Your task to perform on an android device: Go to Google Image 0: 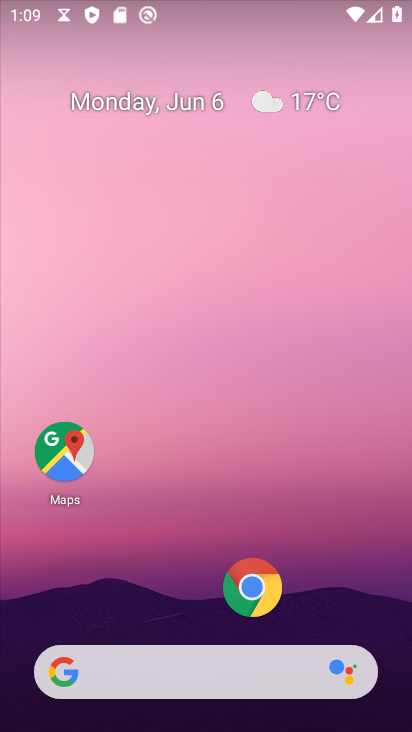
Step 0: click (61, 674)
Your task to perform on an android device: Go to Google Image 1: 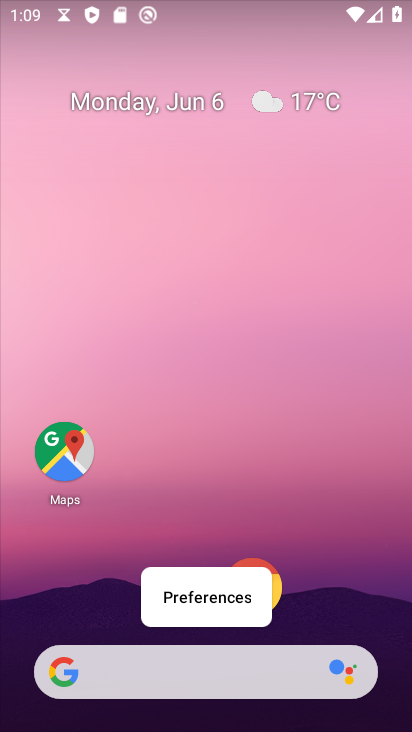
Step 1: click (147, 663)
Your task to perform on an android device: Go to Google Image 2: 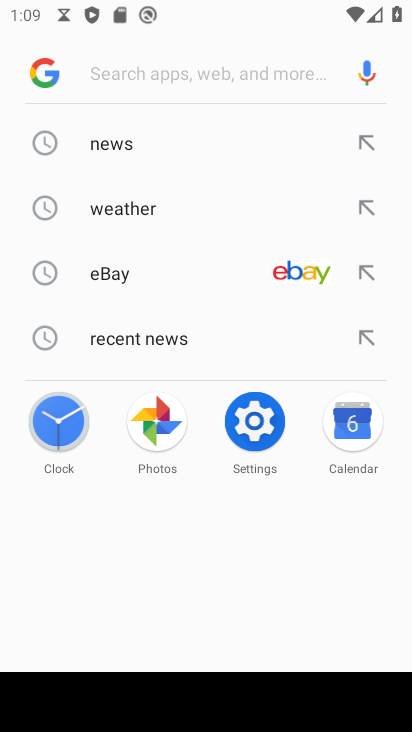
Step 2: click (47, 77)
Your task to perform on an android device: Go to Google Image 3: 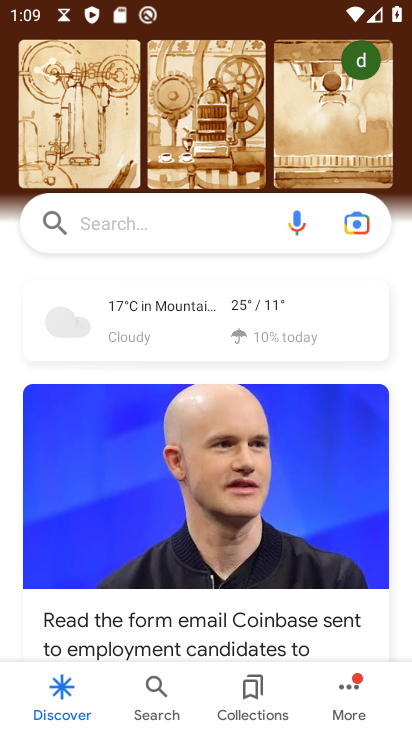
Step 3: task complete